Your task to perform on an android device: uninstall "Facebook Messenger" Image 0: 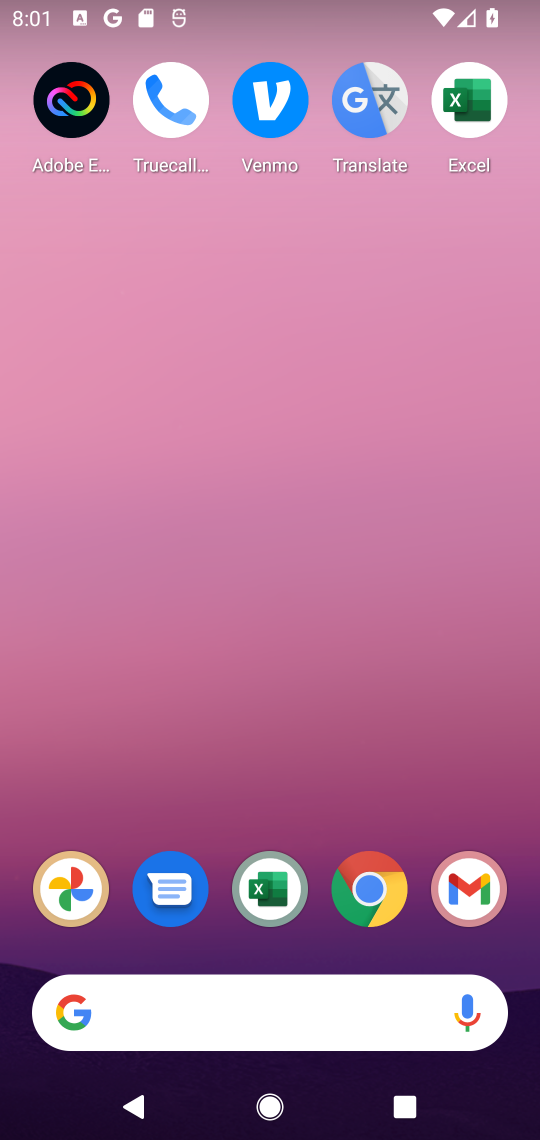
Step 0: press home button
Your task to perform on an android device: uninstall "Facebook Messenger" Image 1: 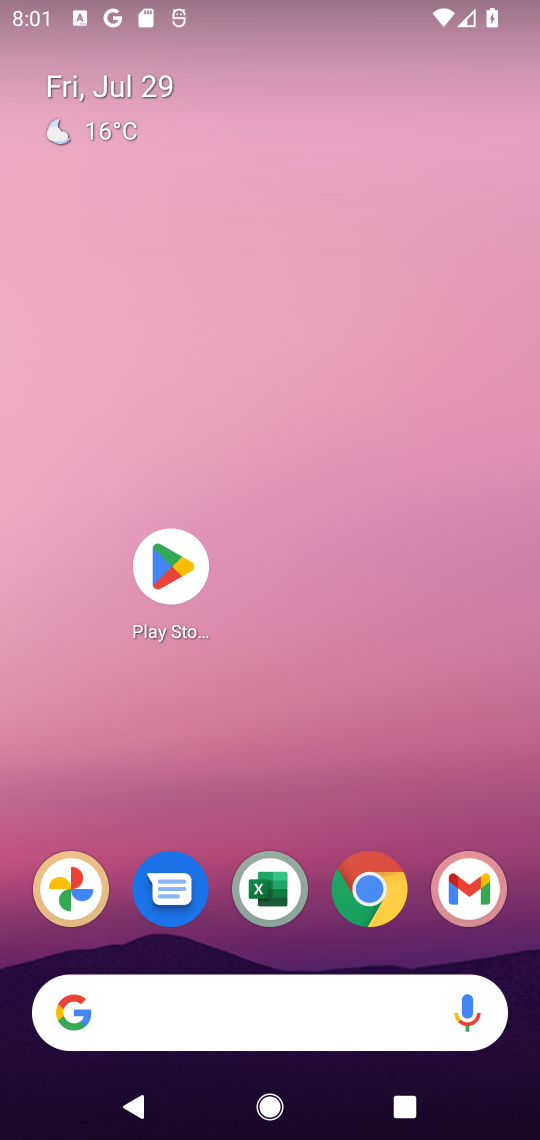
Step 1: click (169, 567)
Your task to perform on an android device: uninstall "Facebook Messenger" Image 2: 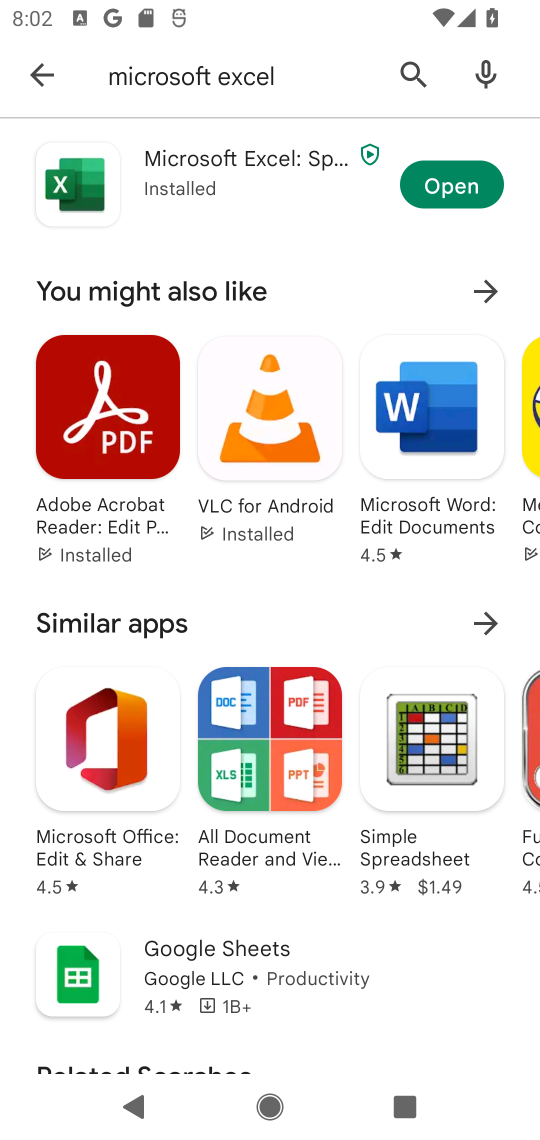
Step 2: click (403, 64)
Your task to perform on an android device: uninstall "Facebook Messenger" Image 3: 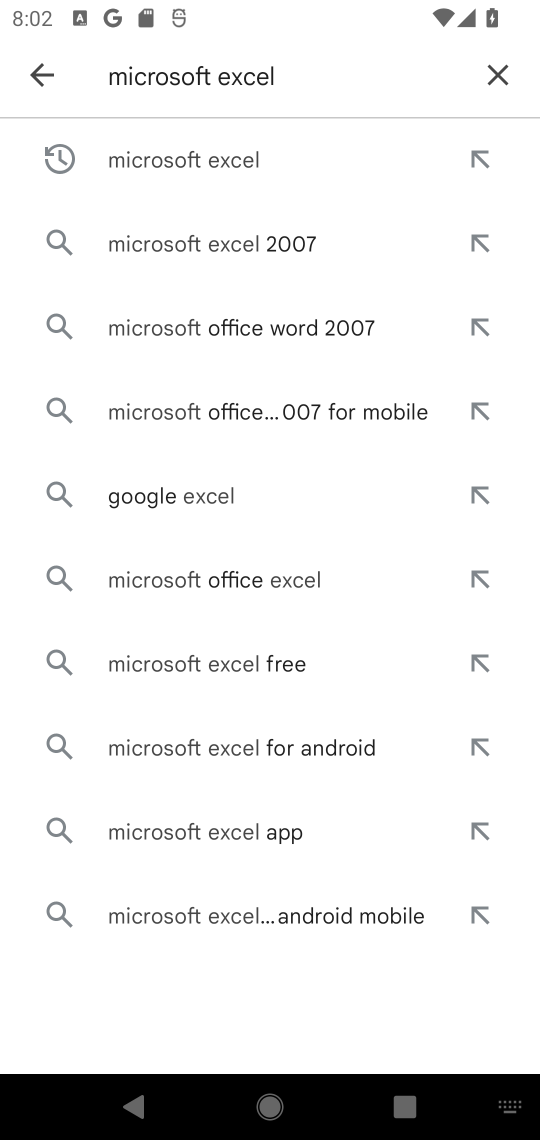
Step 3: click (503, 77)
Your task to perform on an android device: uninstall "Facebook Messenger" Image 4: 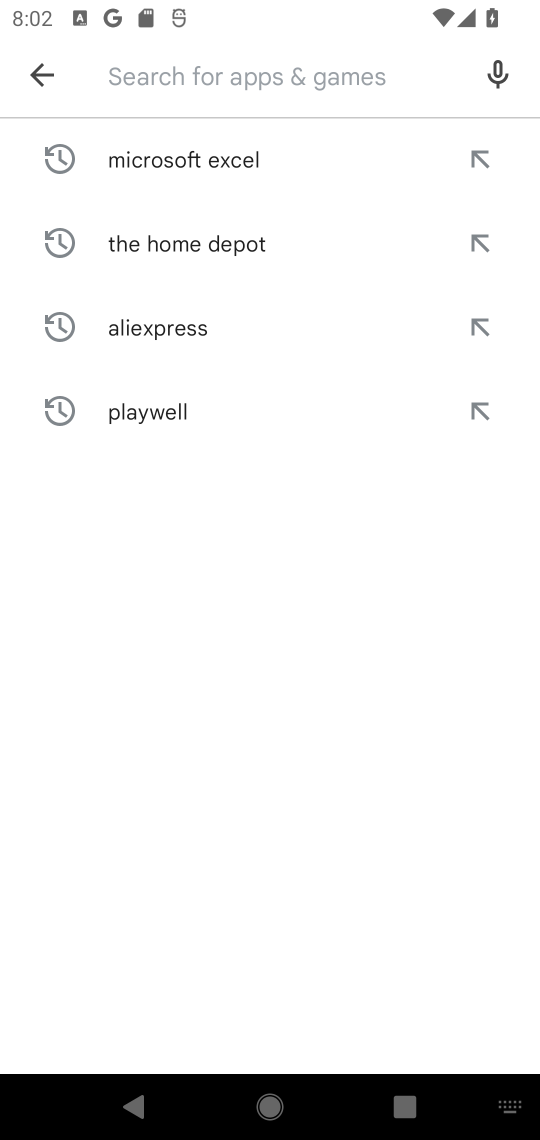
Step 4: type "Facebook Messenger"
Your task to perform on an android device: uninstall "Facebook Messenger" Image 5: 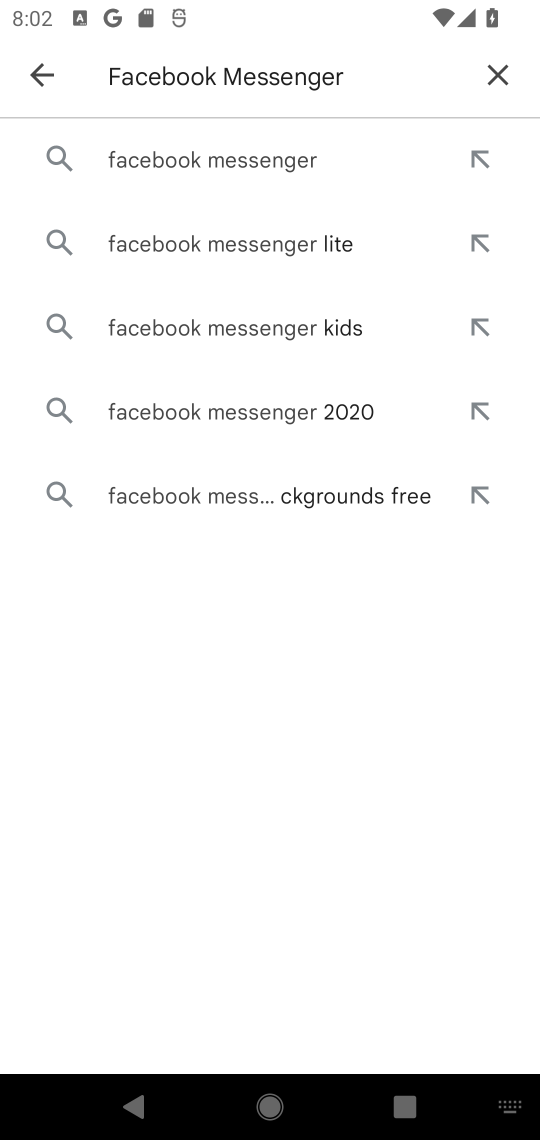
Step 5: click (220, 153)
Your task to perform on an android device: uninstall "Facebook Messenger" Image 6: 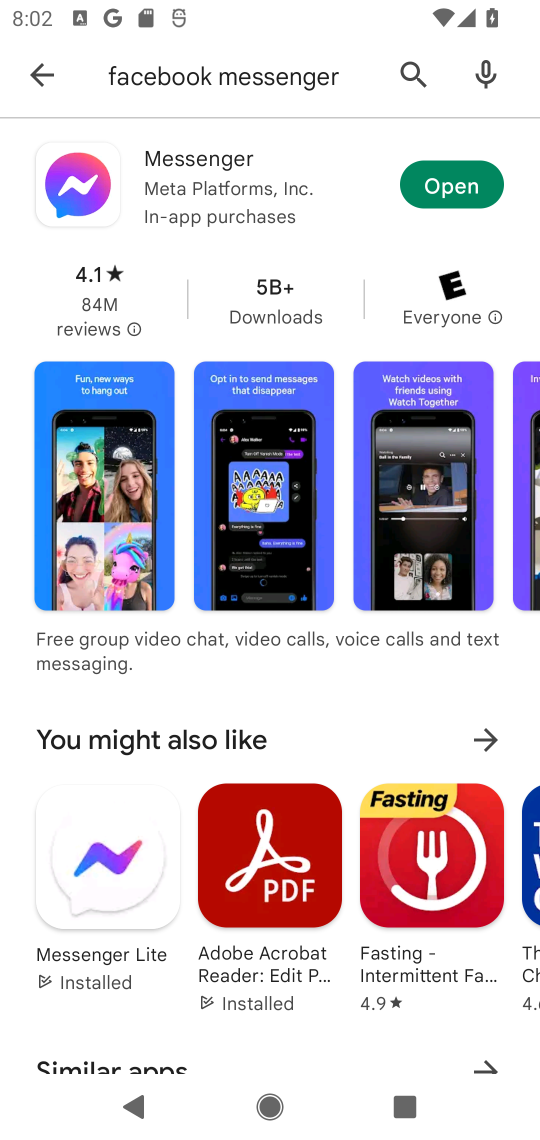
Step 6: click (85, 194)
Your task to perform on an android device: uninstall "Facebook Messenger" Image 7: 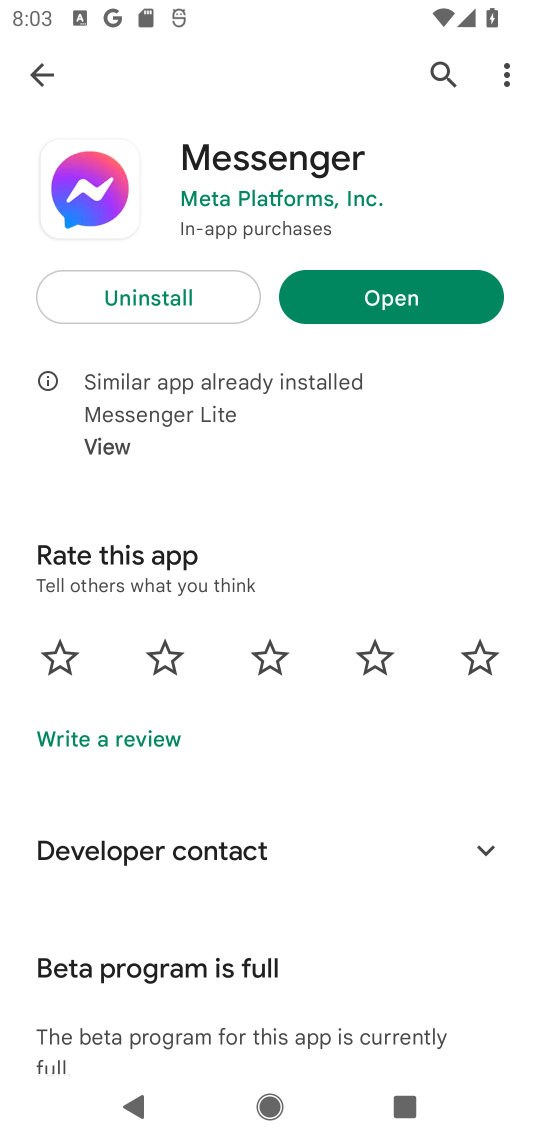
Step 7: click (167, 287)
Your task to perform on an android device: uninstall "Facebook Messenger" Image 8: 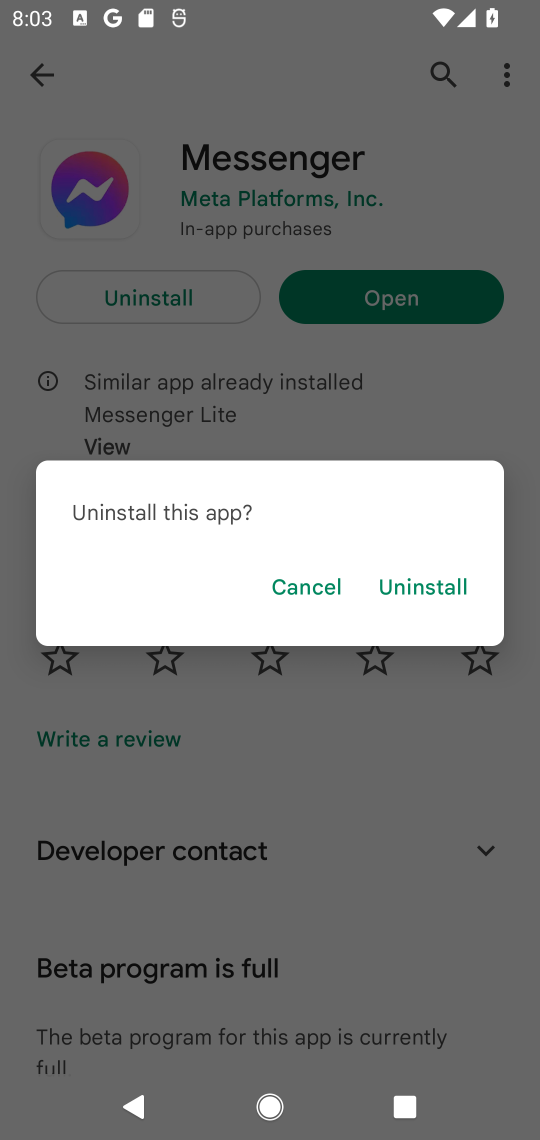
Step 8: click (416, 590)
Your task to perform on an android device: uninstall "Facebook Messenger" Image 9: 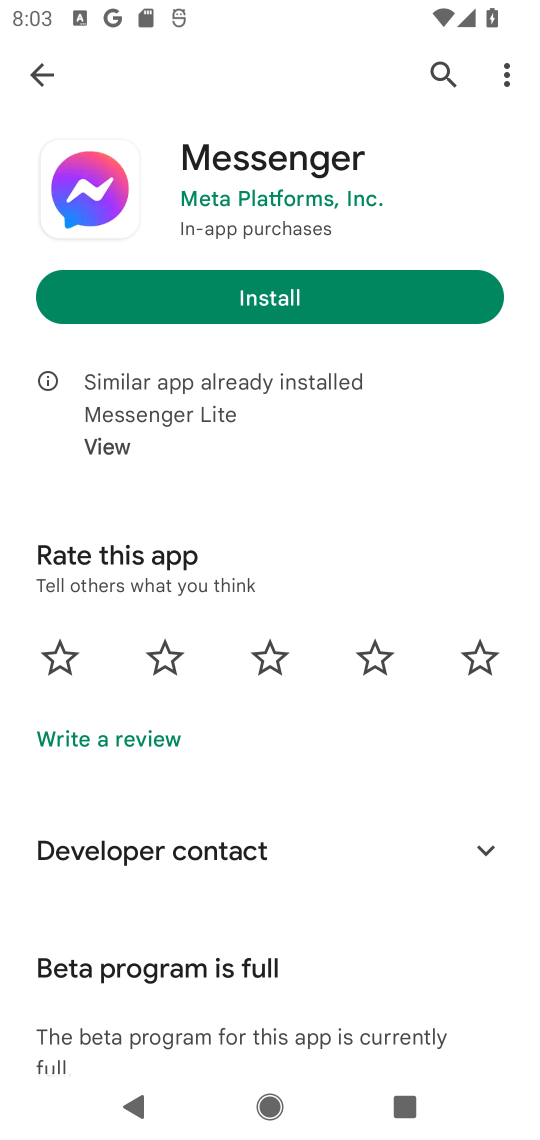
Step 9: task complete